Your task to perform on an android device: Open the web browser Image 0: 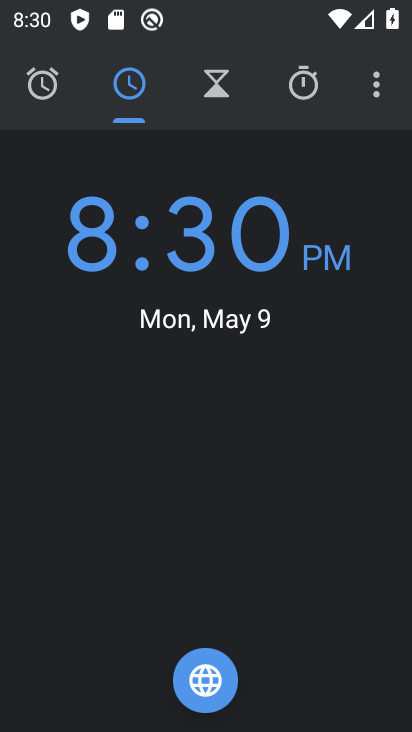
Step 0: press home button
Your task to perform on an android device: Open the web browser Image 1: 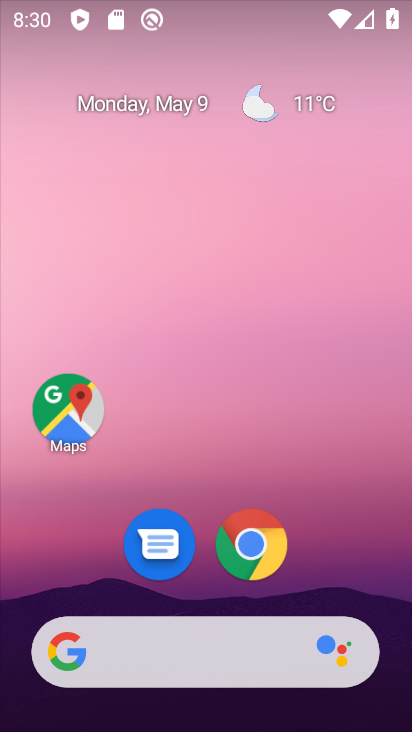
Step 1: click (252, 541)
Your task to perform on an android device: Open the web browser Image 2: 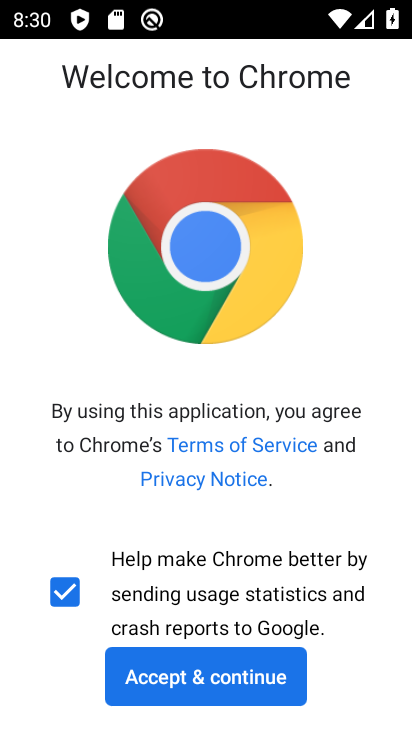
Step 2: click (201, 667)
Your task to perform on an android device: Open the web browser Image 3: 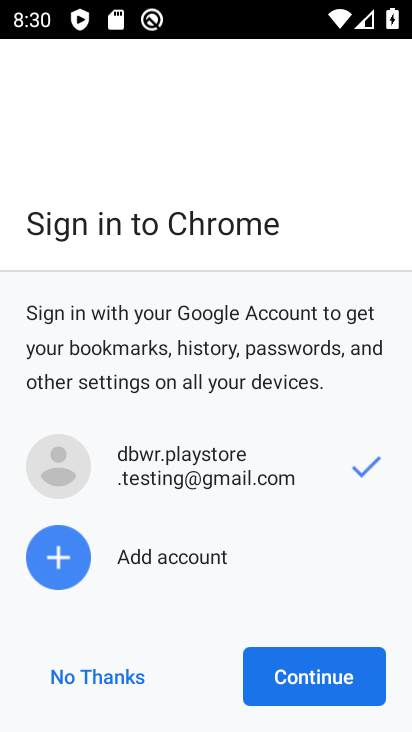
Step 3: click (285, 680)
Your task to perform on an android device: Open the web browser Image 4: 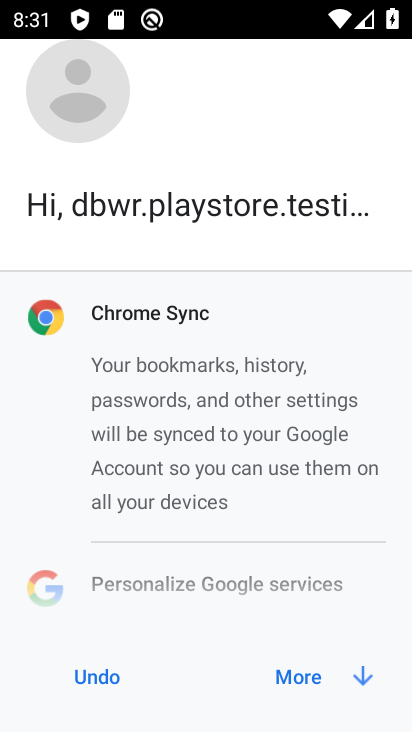
Step 4: click (303, 669)
Your task to perform on an android device: Open the web browser Image 5: 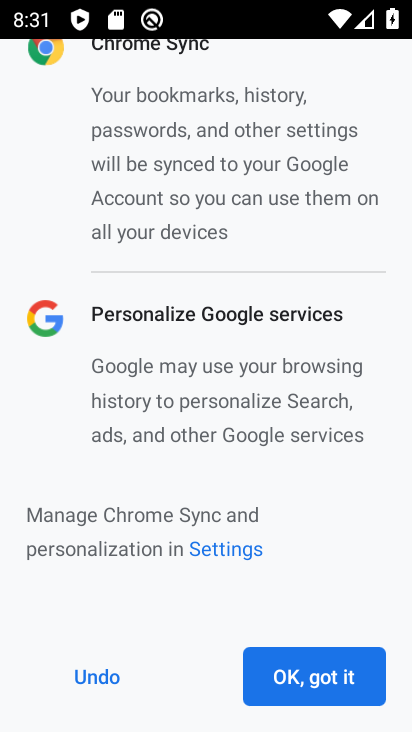
Step 5: click (297, 672)
Your task to perform on an android device: Open the web browser Image 6: 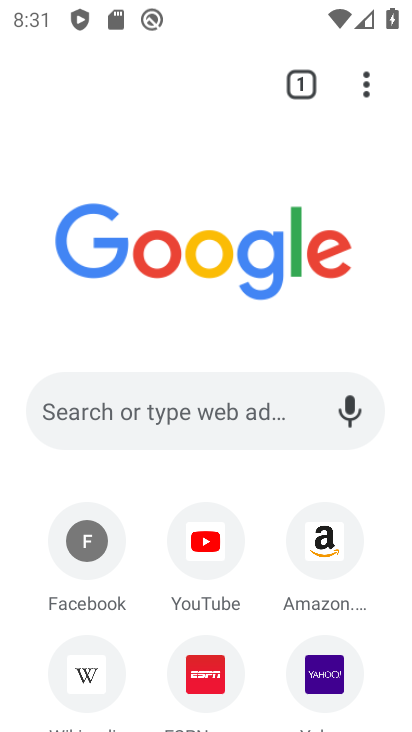
Step 6: task complete